Your task to perform on an android device: turn on location history Image 0: 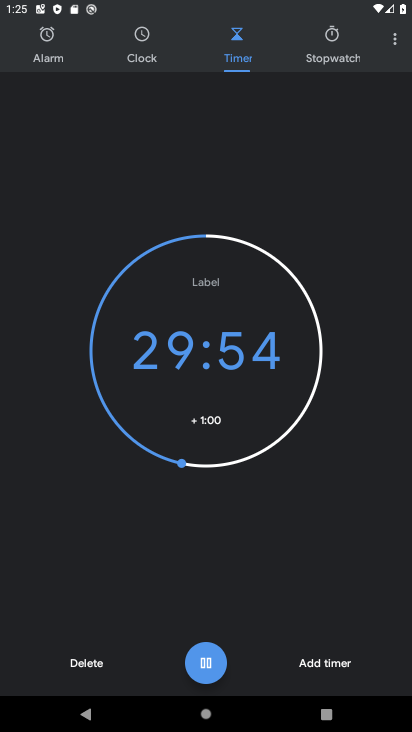
Step 0: press home button
Your task to perform on an android device: turn on location history Image 1: 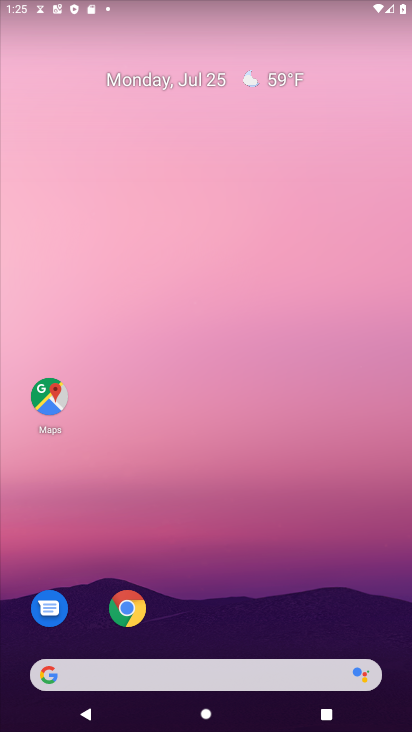
Step 1: drag from (293, 608) to (263, 126)
Your task to perform on an android device: turn on location history Image 2: 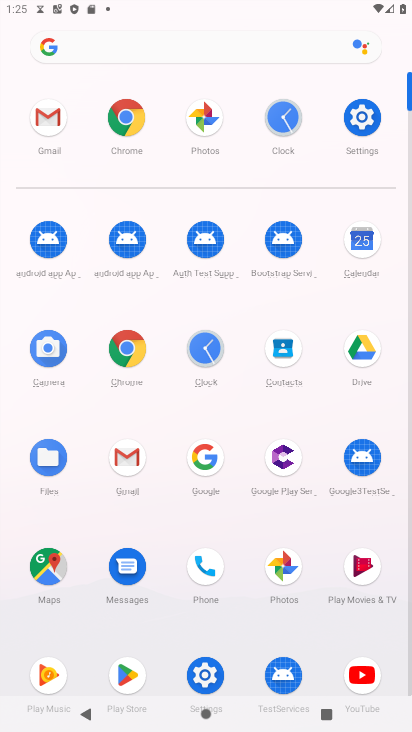
Step 2: click (361, 134)
Your task to perform on an android device: turn on location history Image 3: 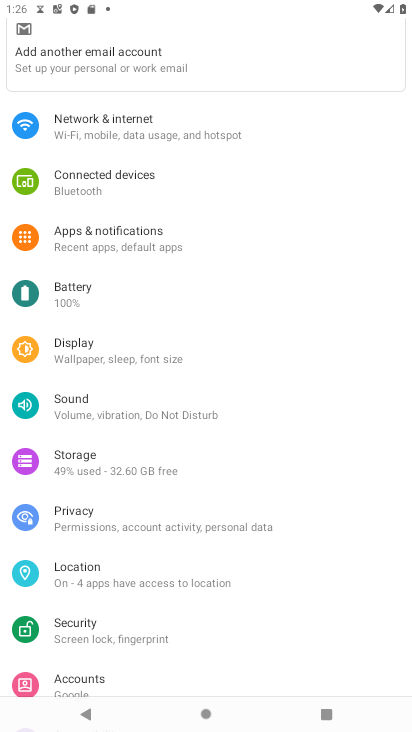
Step 3: click (121, 578)
Your task to perform on an android device: turn on location history Image 4: 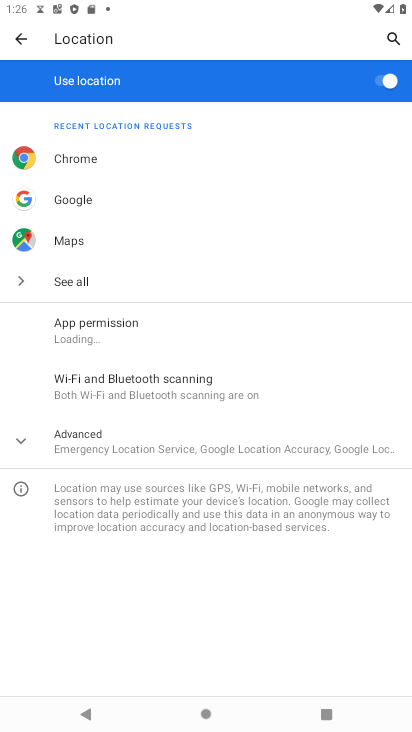
Step 4: click (138, 438)
Your task to perform on an android device: turn on location history Image 5: 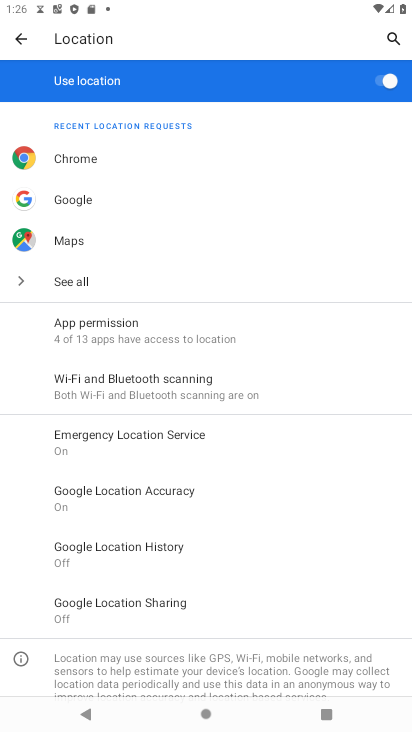
Step 5: click (183, 554)
Your task to perform on an android device: turn on location history Image 6: 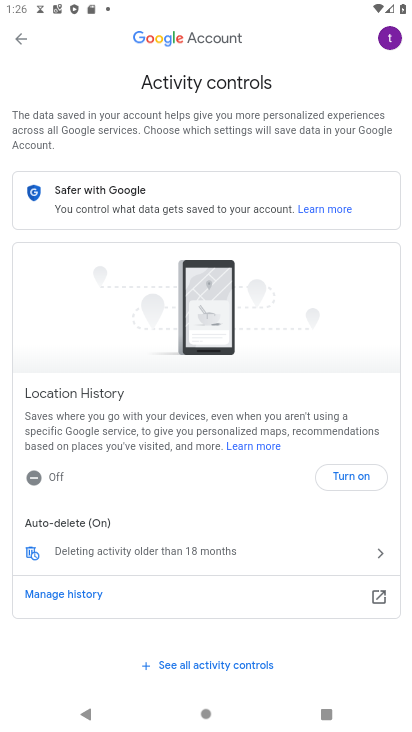
Step 6: click (369, 475)
Your task to perform on an android device: turn on location history Image 7: 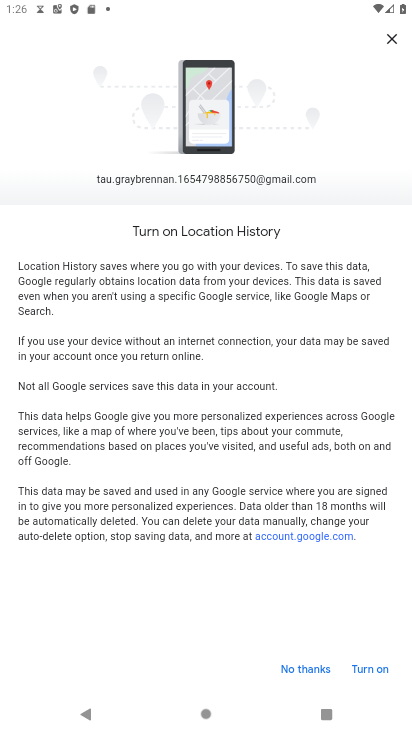
Step 7: click (388, 671)
Your task to perform on an android device: turn on location history Image 8: 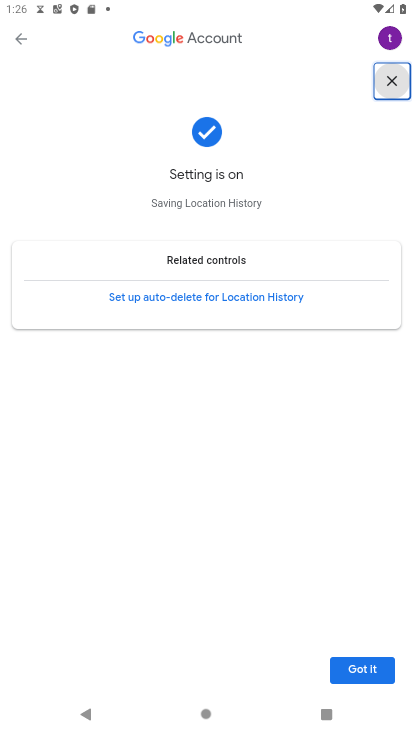
Step 8: click (388, 671)
Your task to perform on an android device: turn on location history Image 9: 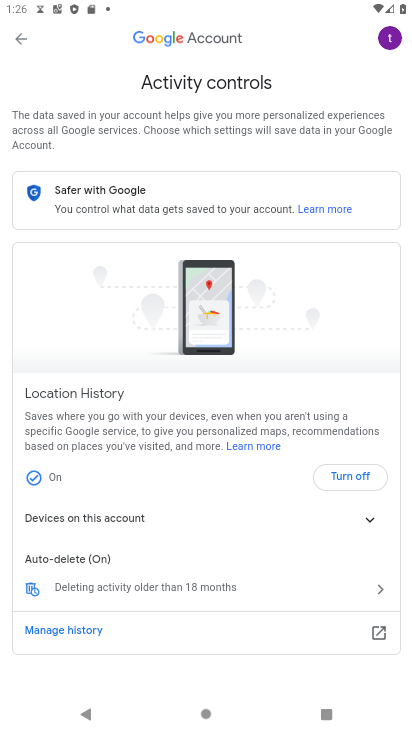
Step 9: task complete